Your task to perform on an android device: Clear the cart on costco.com. Add "macbook pro 13 inch" to the cart on costco.com, then select checkout. Image 0: 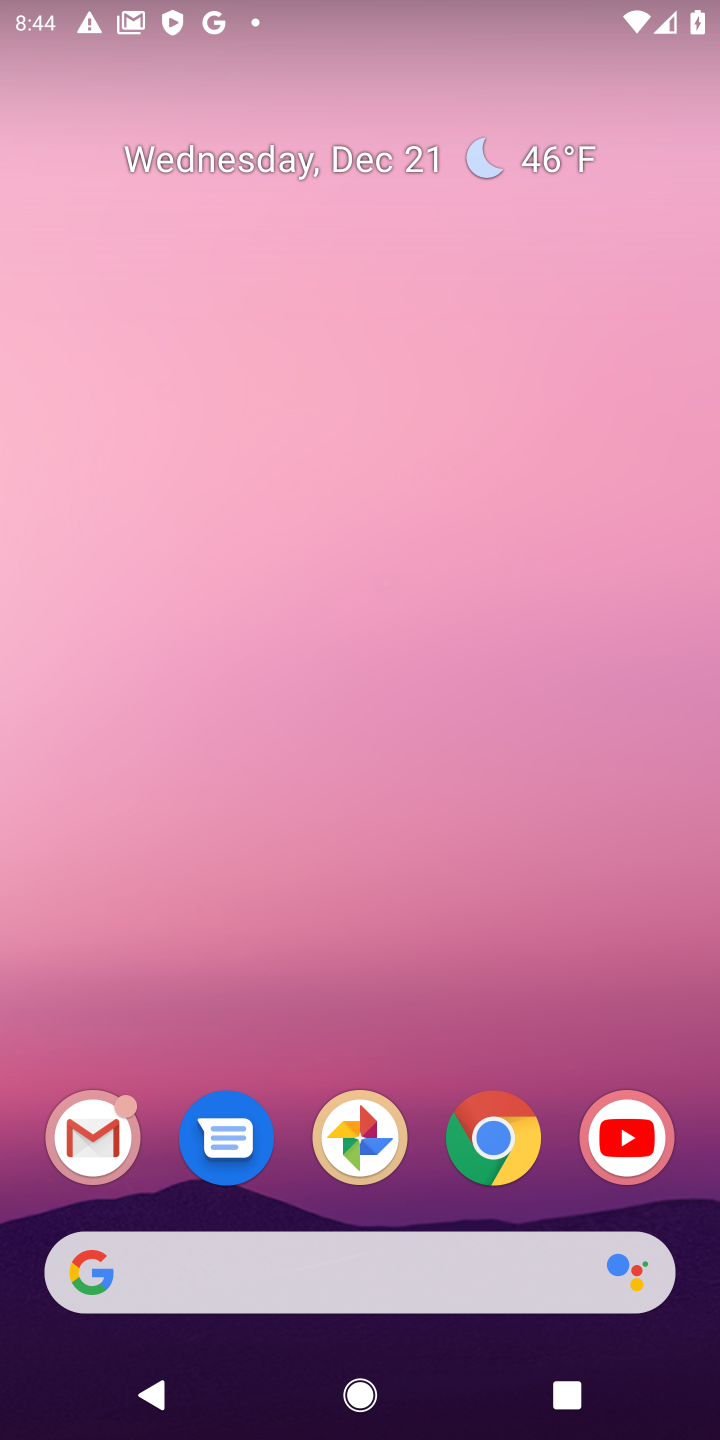
Step 0: click (495, 1141)
Your task to perform on an android device: Clear the cart on costco.com. Add "macbook pro 13 inch" to the cart on costco.com, then select checkout. Image 1: 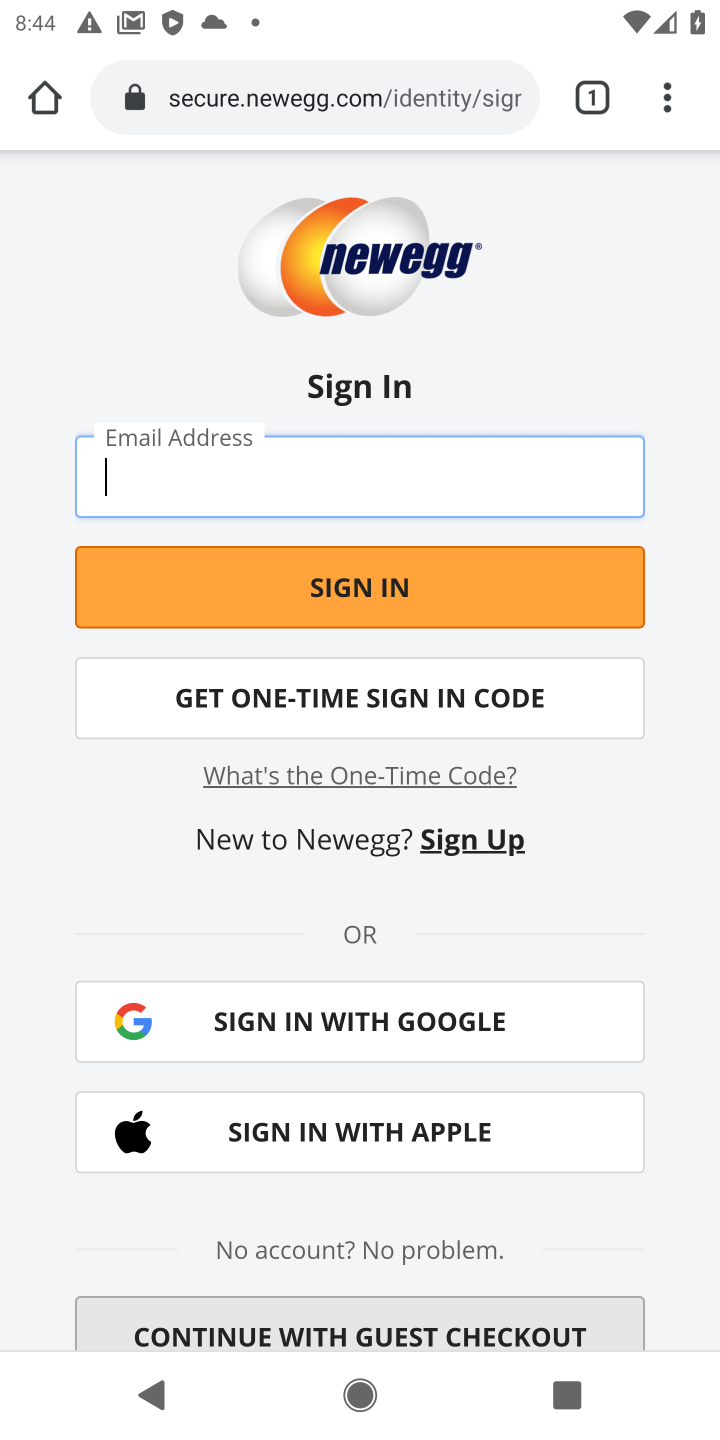
Step 1: click (254, 105)
Your task to perform on an android device: Clear the cart on costco.com. Add "macbook pro 13 inch" to the cart on costco.com, then select checkout. Image 2: 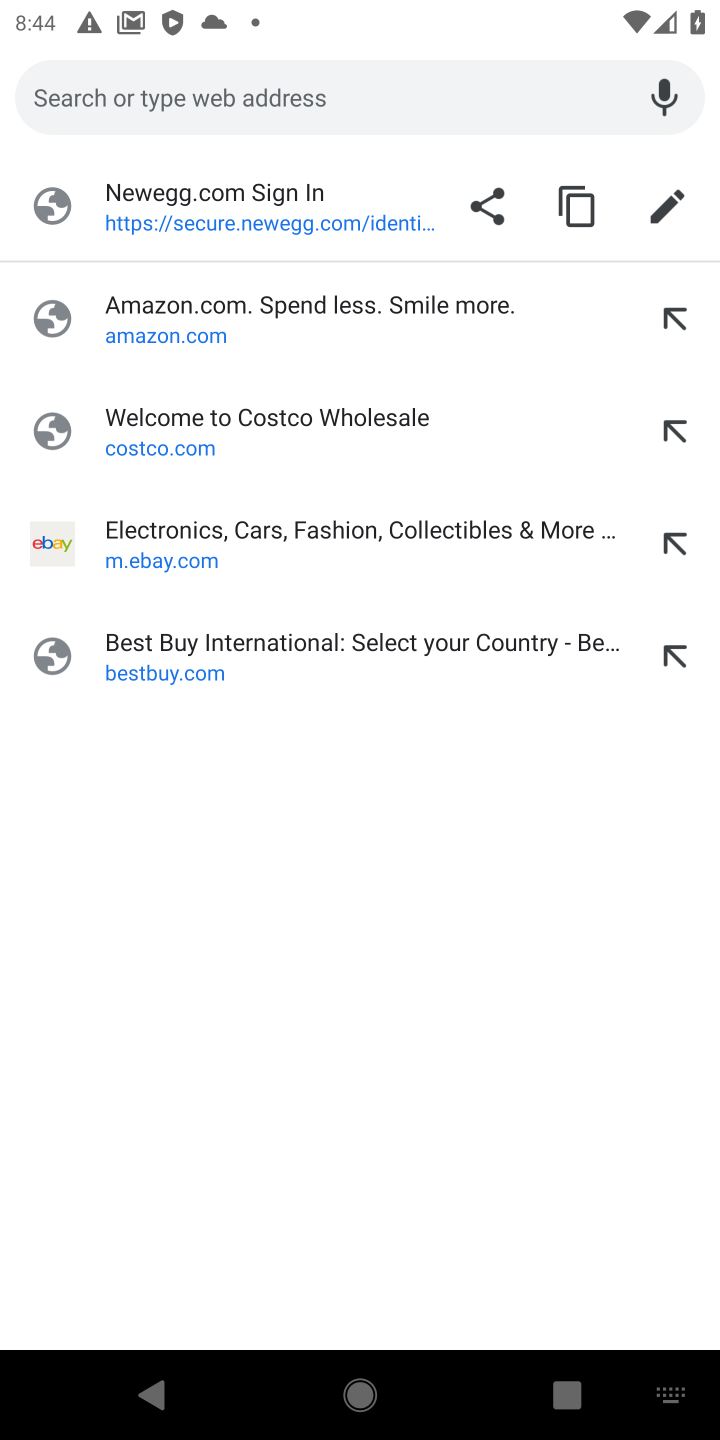
Step 2: click (128, 451)
Your task to perform on an android device: Clear the cart on costco.com. Add "macbook pro 13 inch" to the cart on costco.com, then select checkout. Image 3: 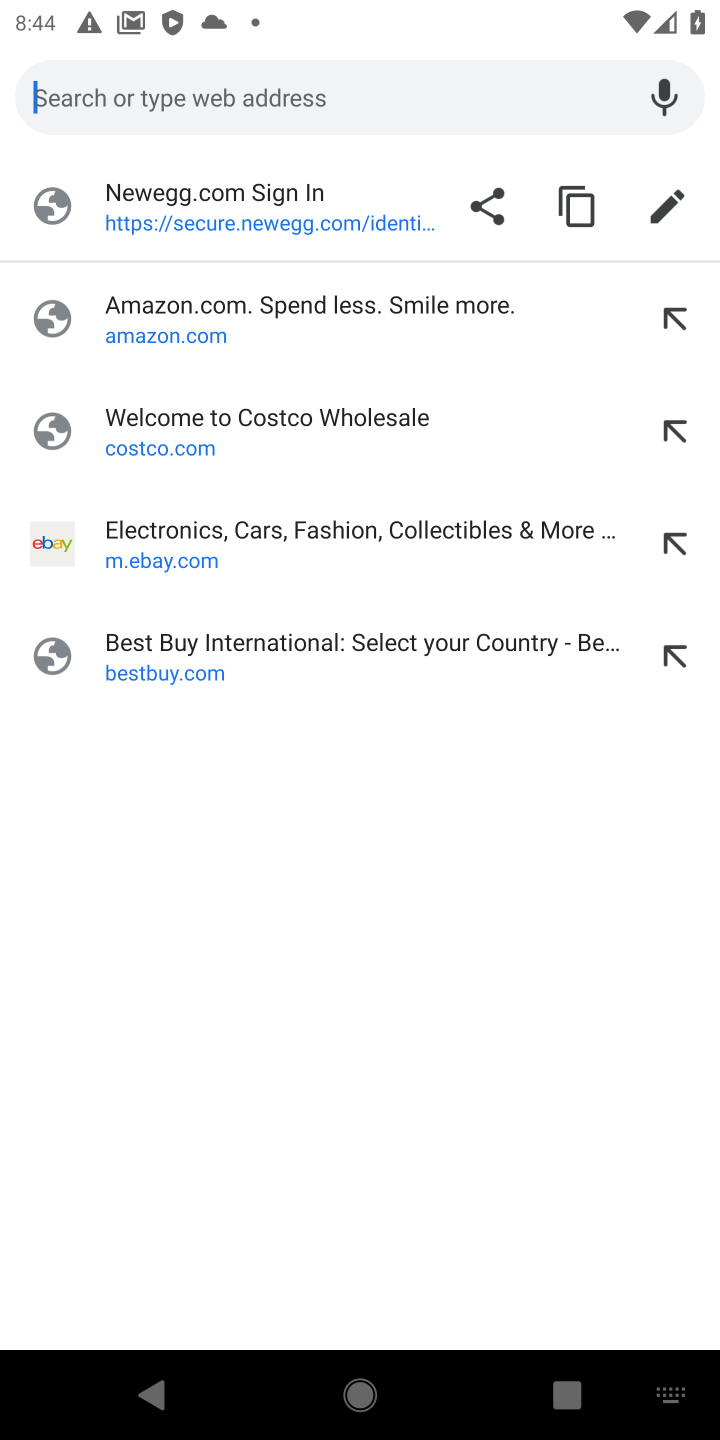
Step 3: click (130, 448)
Your task to perform on an android device: Clear the cart on costco.com. Add "macbook pro 13 inch" to the cart on costco.com, then select checkout. Image 4: 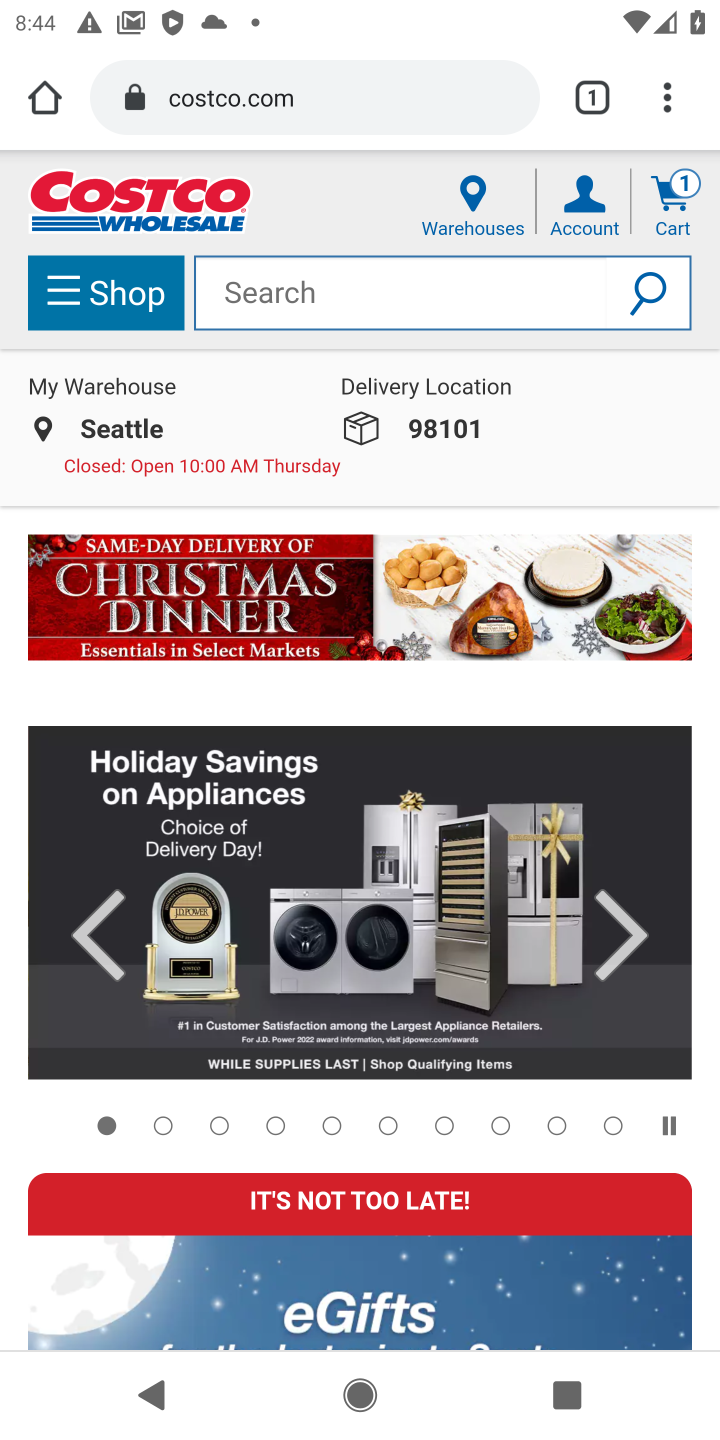
Step 4: click (682, 206)
Your task to perform on an android device: Clear the cart on costco.com. Add "macbook pro 13 inch" to the cart on costco.com, then select checkout. Image 5: 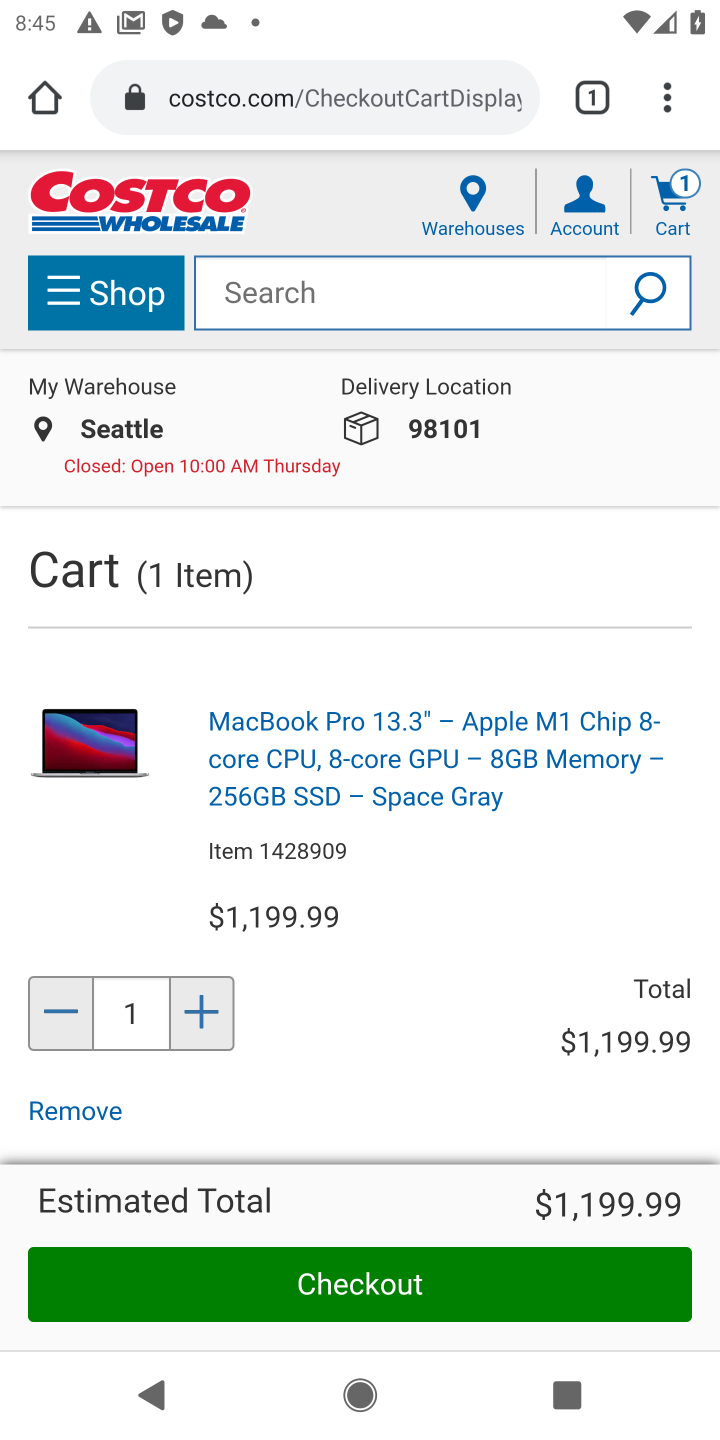
Step 5: drag from (378, 908) to (361, 420)
Your task to perform on an android device: Clear the cart on costco.com. Add "macbook pro 13 inch" to the cart on costco.com, then select checkout. Image 6: 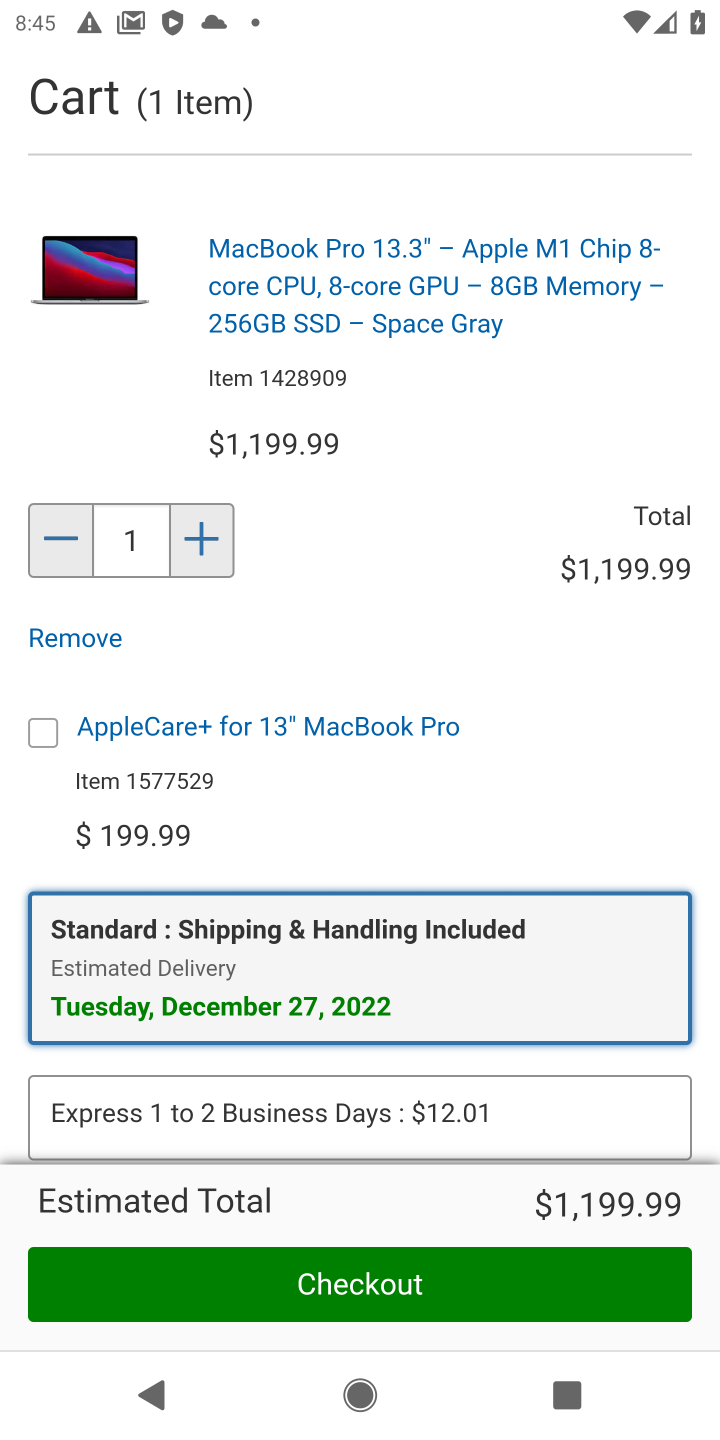
Step 6: drag from (494, 762) to (501, 392)
Your task to perform on an android device: Clear the cart on costco.com. Add "macbook pro 13 inch" to the cart on costco.com, then select checkout. Image 7: 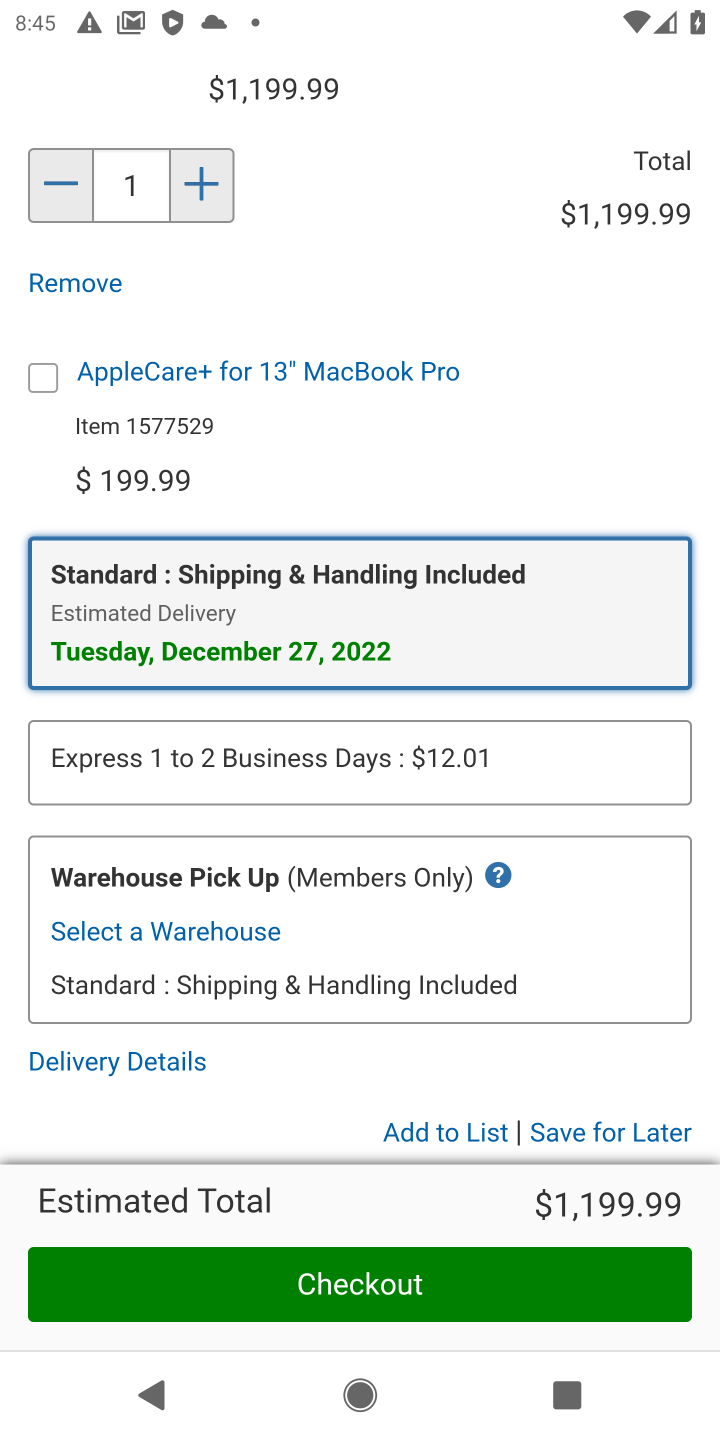
Step 7: click (602, 1139)
Your task to perform on an android device: Clear the cart on costco.com. Add "macbook pro 13 inch" to the cart on costco.com, then select checkout. Image 8: 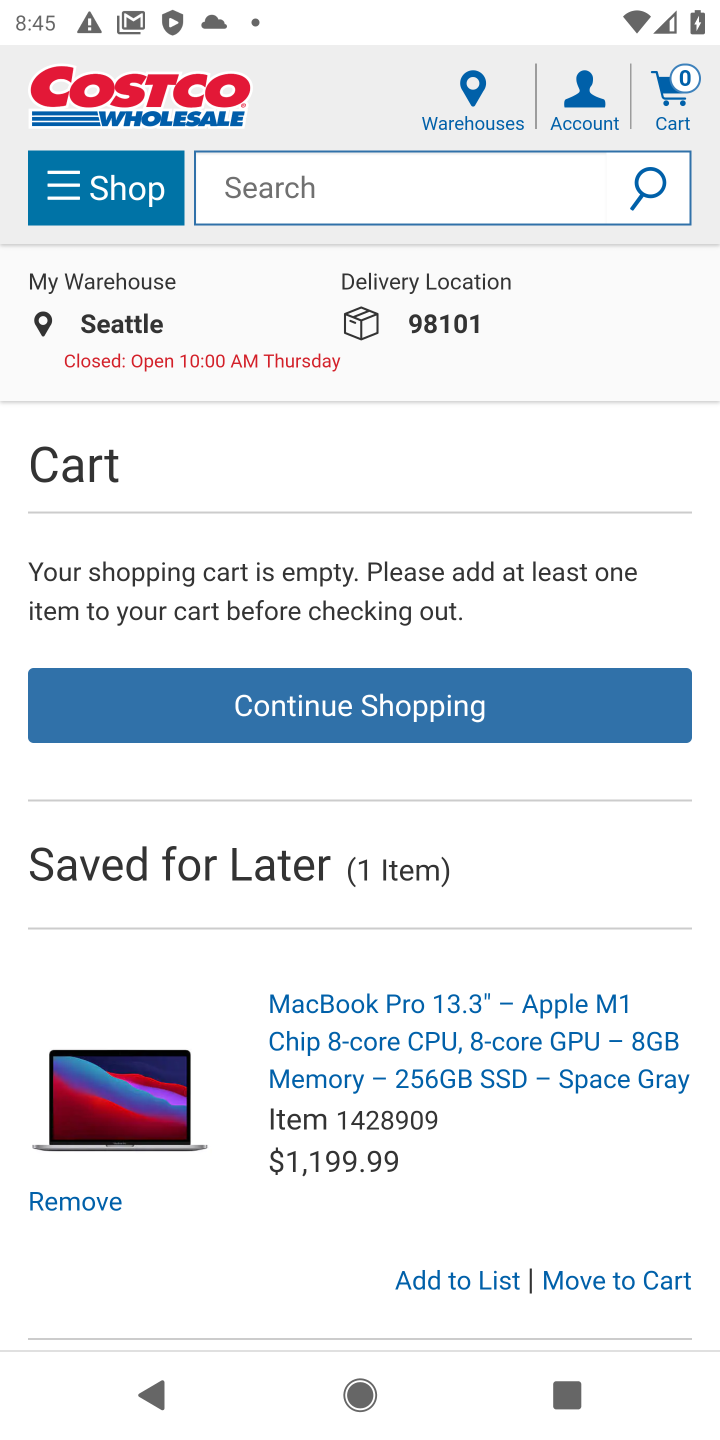
Step 8: click (234, 177)
Your task to perform on an android device: Clear the cart on costco.com. Add "macbook pro 13 inch" to the cart on costco.com, then select checkout. Image 9: 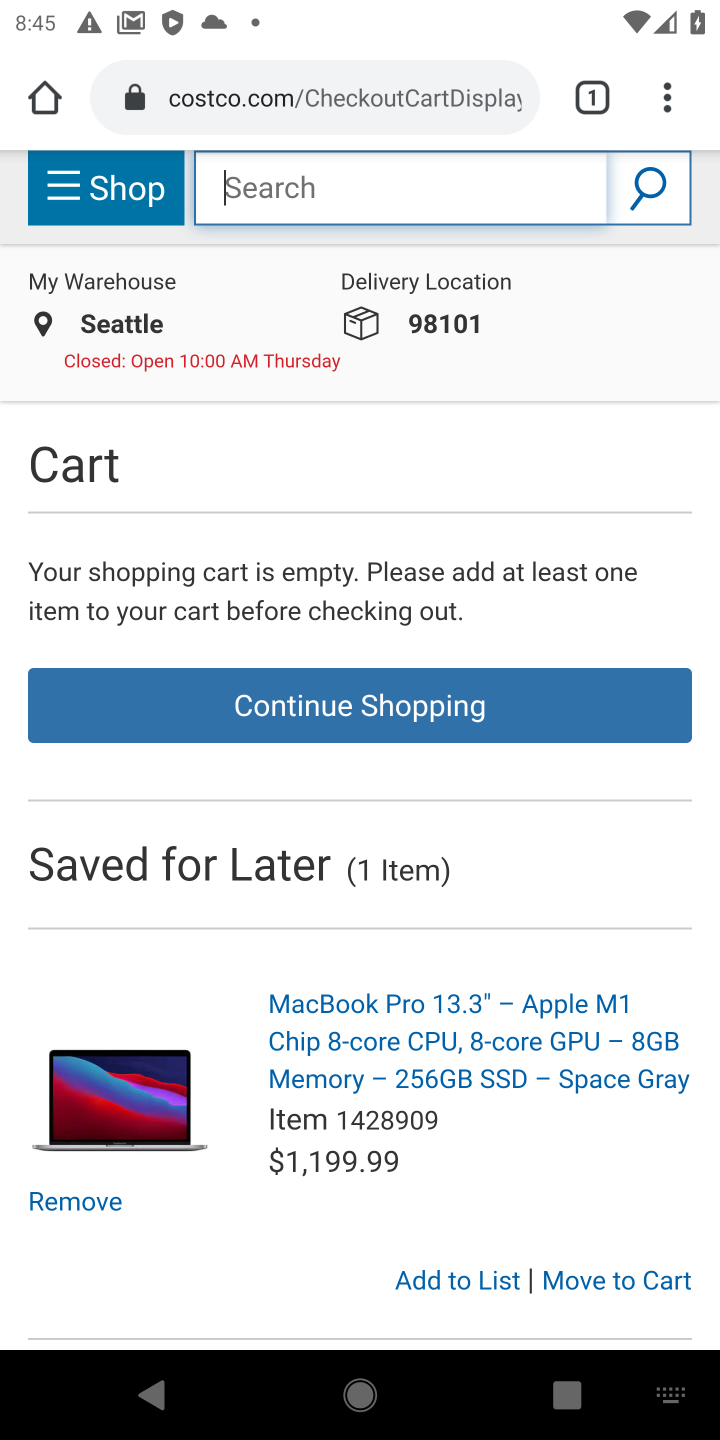
Step 9: type "macbook pro 13 inch"
Your task to perform on an android device: Clear the cart on costco.com. Add "macbook pro 13 inch" to the cart on costco.com, then select checkout. Image 10: 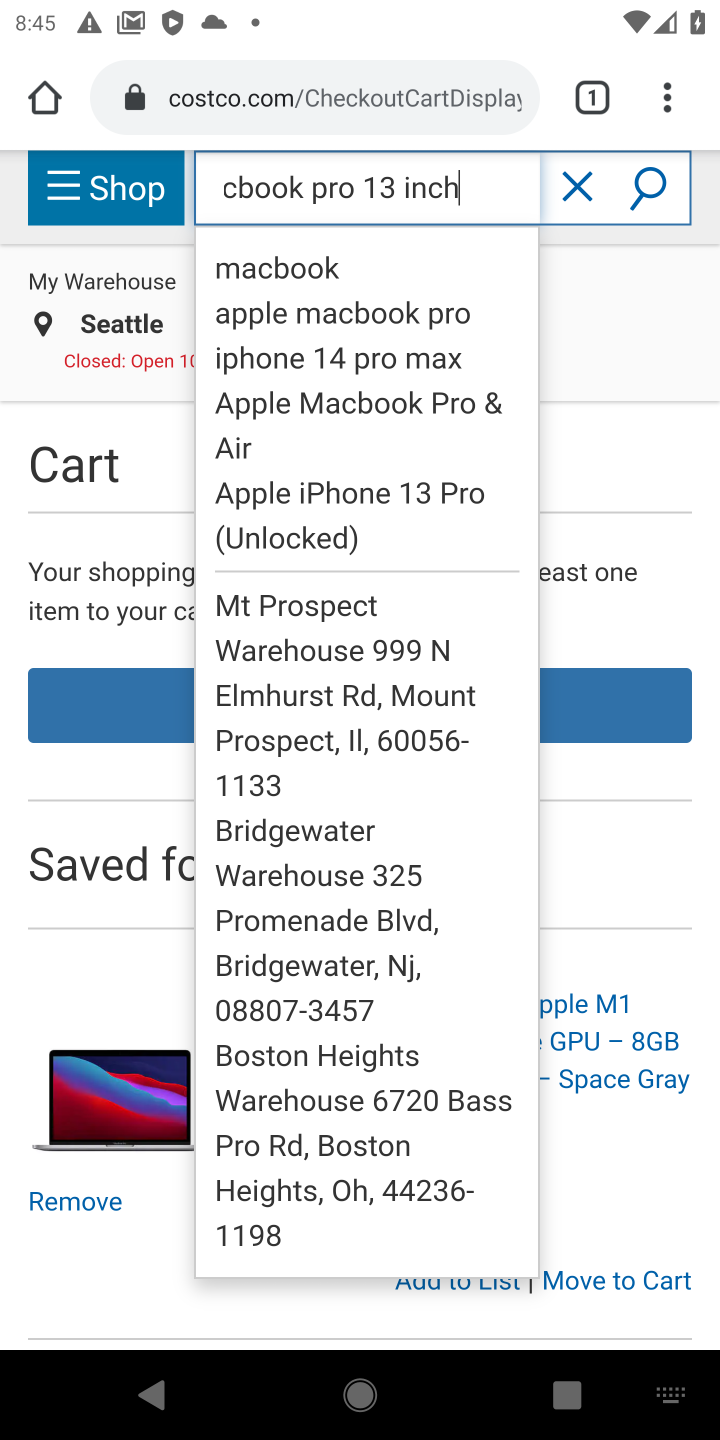
Step 10: click (638, 191)
Your task to perform on an android device: Clear the cart on costco.com. Add "macbook pro 13 inch" to the cart on costco.com, then select checkout. Image 11: 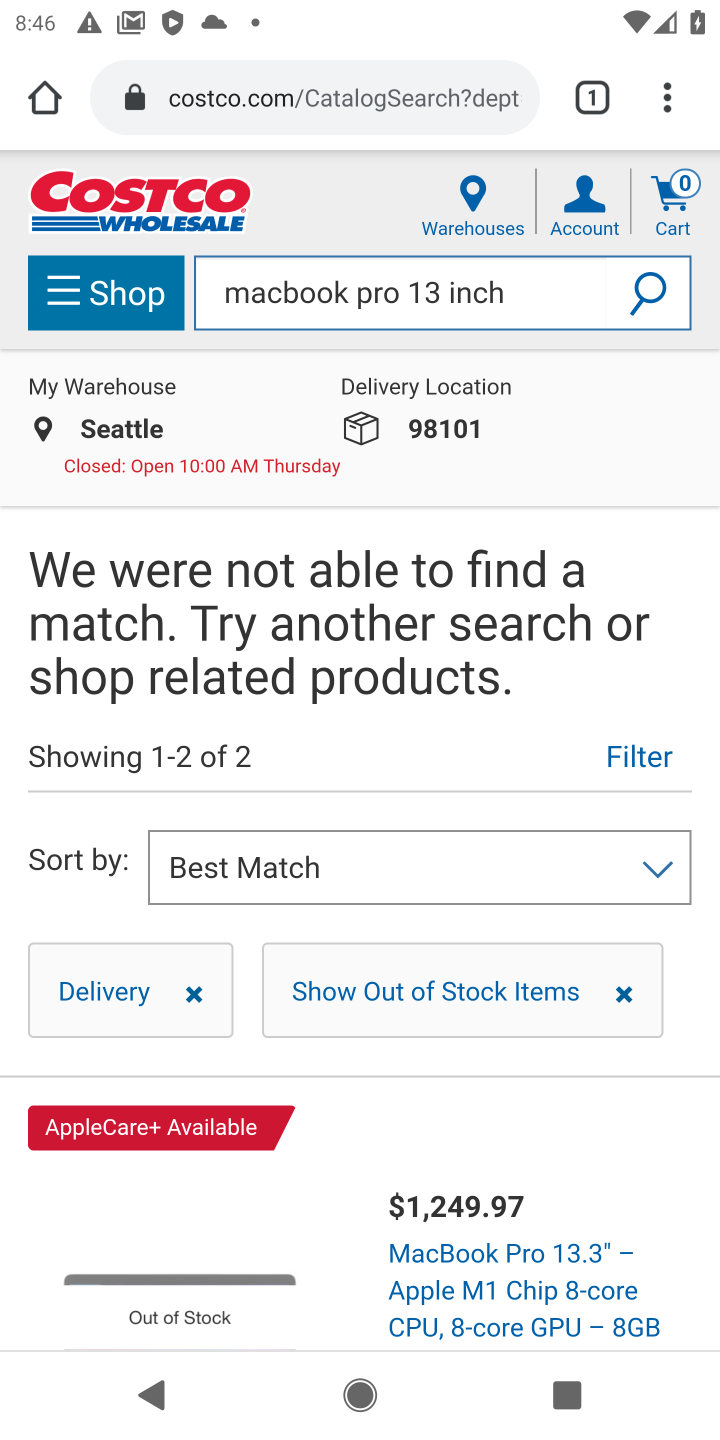
Step 11: task complete